Your task to perform on an android device: See recent photos Image 0: 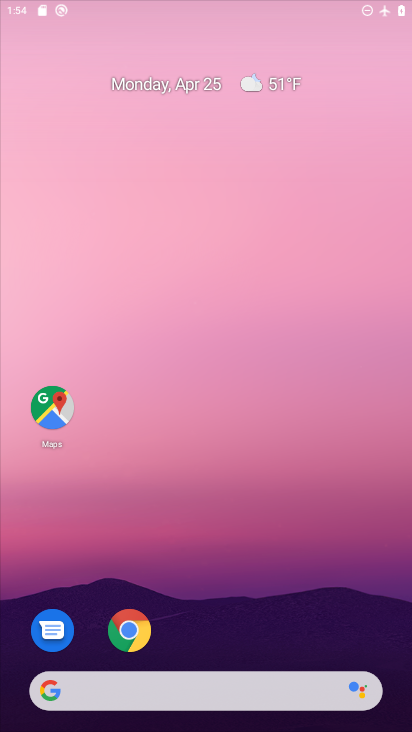
Step 0: drag from (225, 259) to (229, 38)
Your task to perform on an android device: See recent photos Image 1: 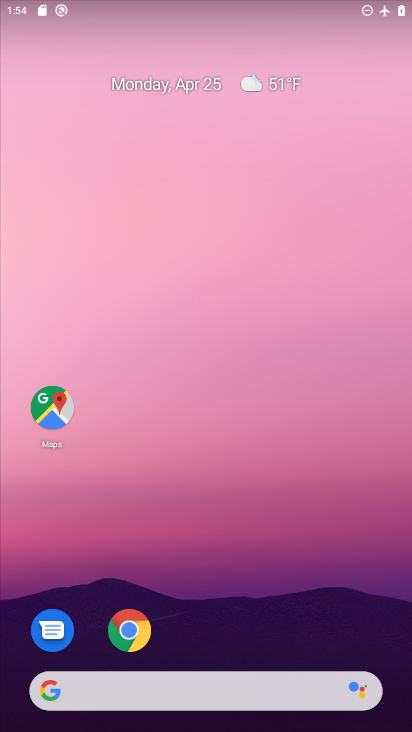
Step 1: drag from (276, 567) to (345, 54)
Your task to perform on an android device: See recent photos Image 2: 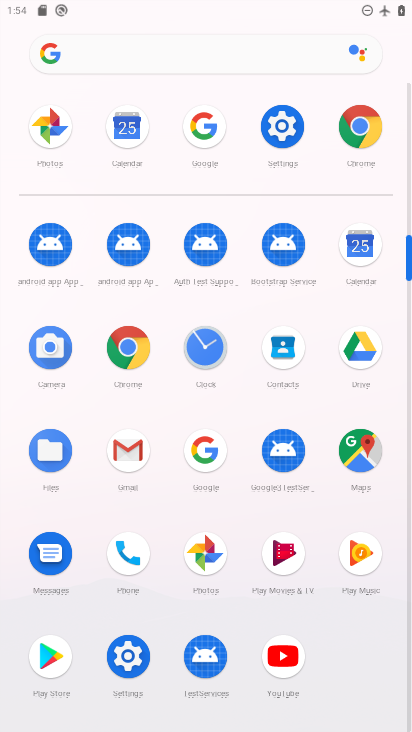
Step 2: click (62, 123)
Your task to perform on an android device: See recent photos Image 3: 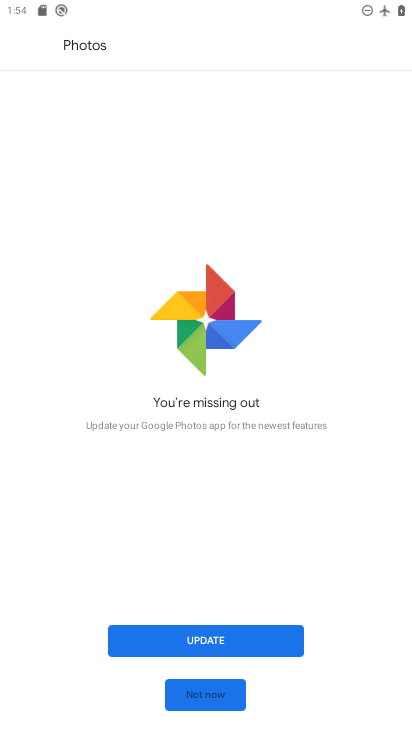
Step 3: click (259, 637)
Your task to perform on an android device: See recent photos Image 4: 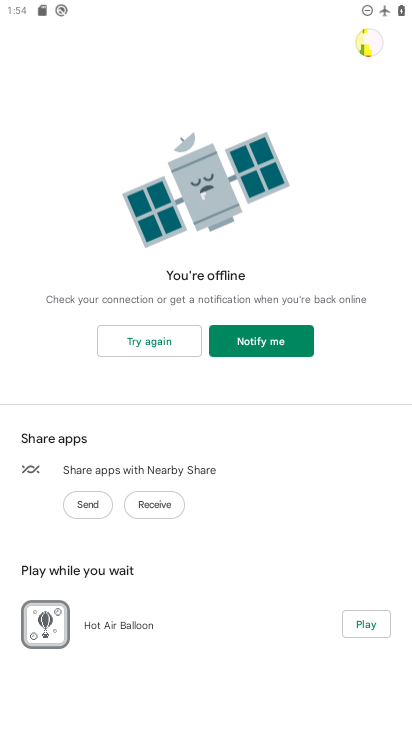
Step 4: click (270, 339)
Your task to perform on an android device: See recent photos Image 5: 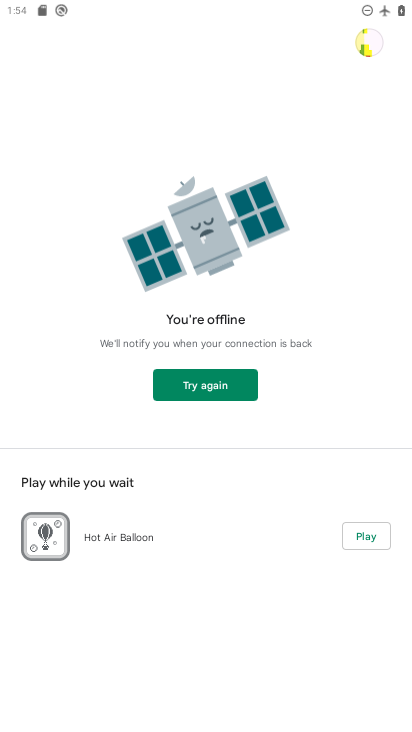
Step 5: click (221, 381)
Your task to perform on an android device: See recent photos Image 6: 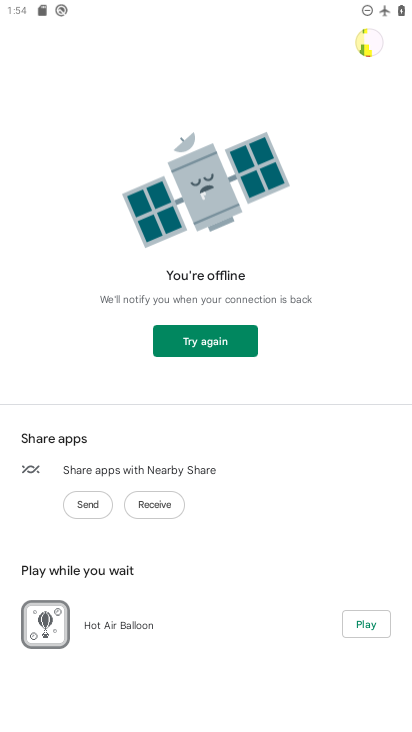
Step 6: task complete